Your task to perform on an android device: change notification settings in the gmail app Image 0: 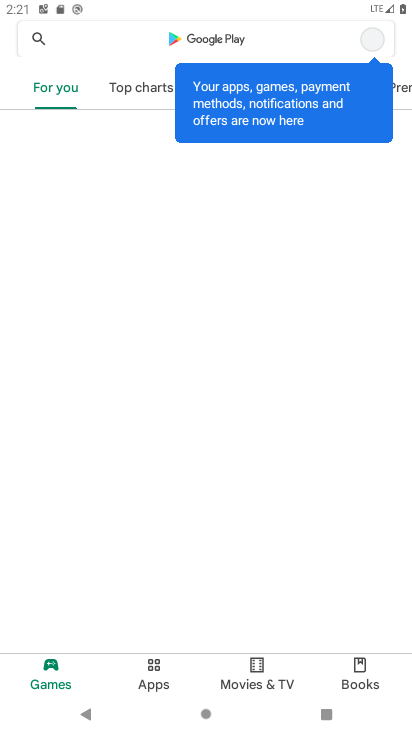
Step 0: press home button
Your task to perform on an android device: change notification settings in the gmail app Image 1: 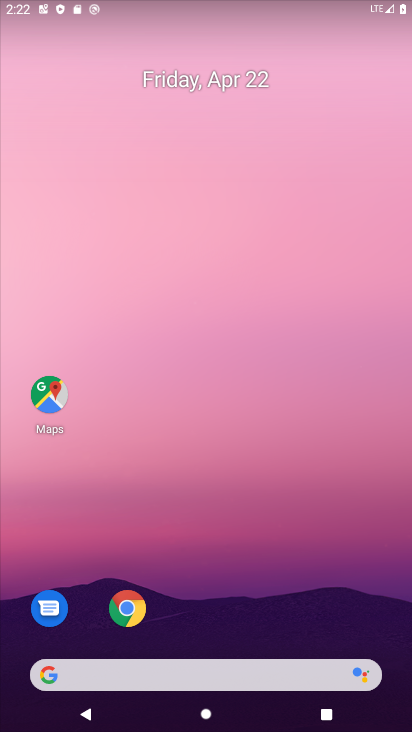
Step 1: drag from (250, 692) to (248, 328)
Your task to perform on an android device: change notification settings in the gmail app Image 2: 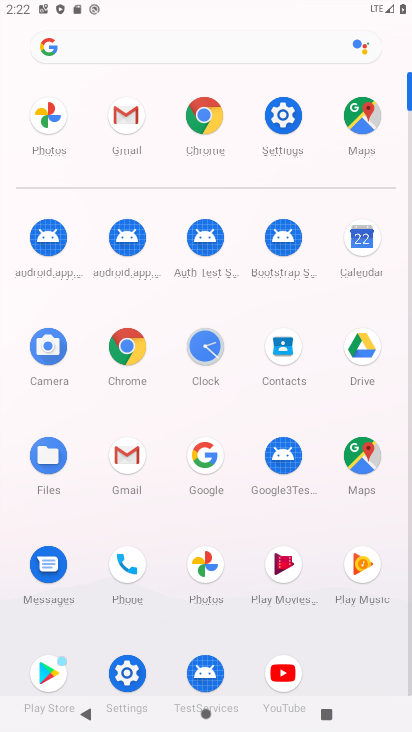
Step 2: click (138, 120)
Your task to perform on an android device: change notification settings in the gmail app Image 3: 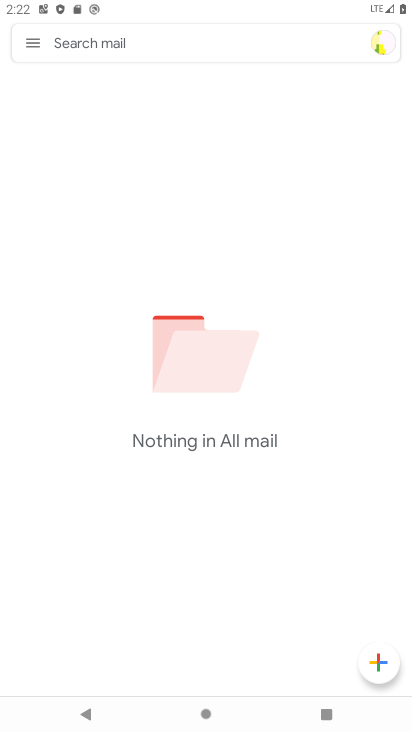
Step 3: click (36, 39)
Your task to perform on an android device: change notification settings in the gmail app Image 4: 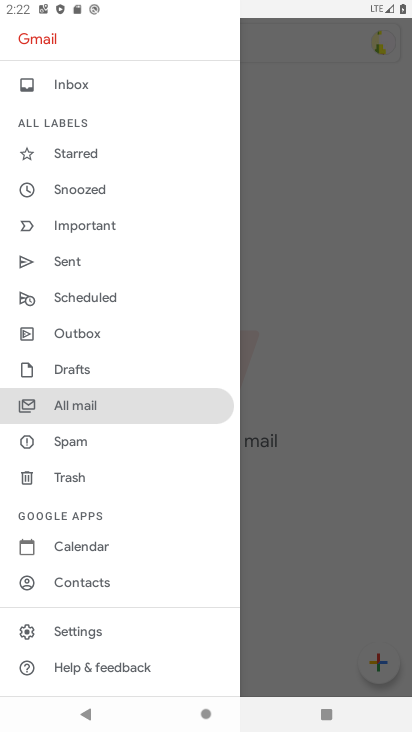
Step 4: click (69, 628)
Your task to perform on an android device: change notification settings in the gmail app Image 5: 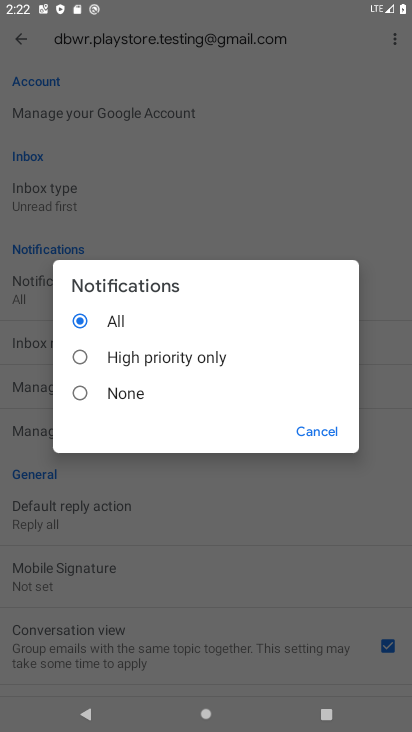
Step 5: click (126, 364)
Your task to perform on an android device: change notification settings in the gmail app Image 6: 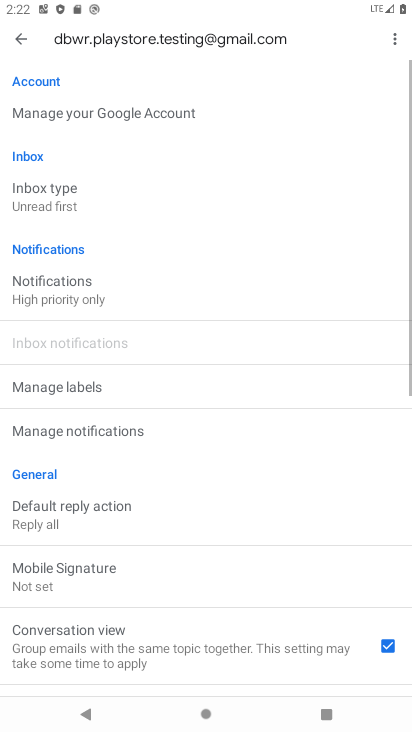
Step 6: task complete